Your task to perform on an android device: toggle data saver in the chrome app Image 0: 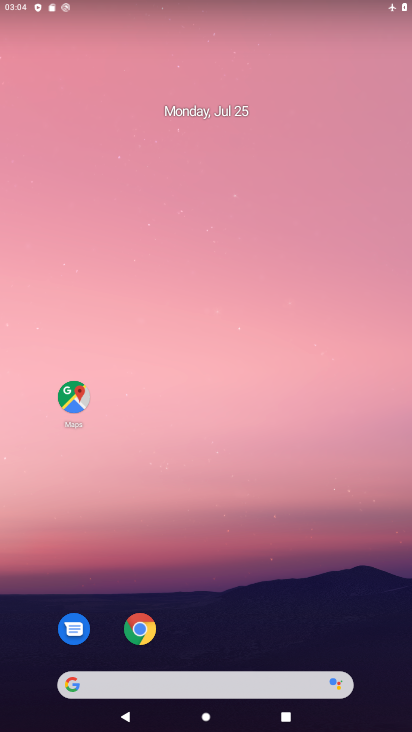
Step 0: click (140, 641)
Your task to perform on an android device: toggle data saver in the chrome app Image 1: 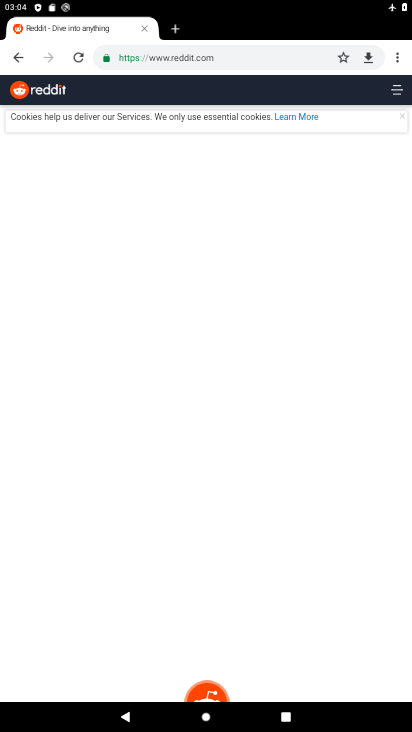
Step 1: drag from (397, 56) to (273, 351)
Your task to perform on an android device: toggle data saver in the chrome app Image 2: 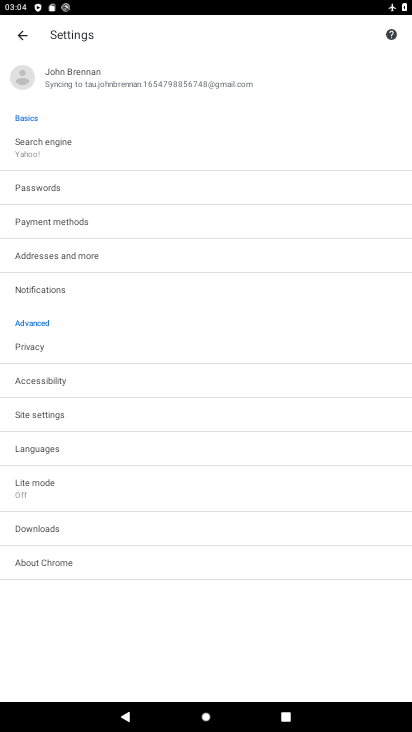
Step 2: click (50, 484)
Your task to perform on an android device: toggle data saver in the chrome app Image 3: 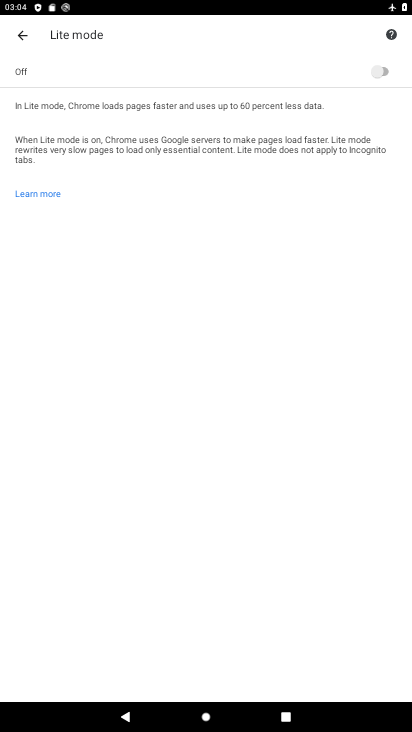
Step 3: click (380, 74)
Your task to perform on an android device: toggle data saver in the chrome app Image 4: 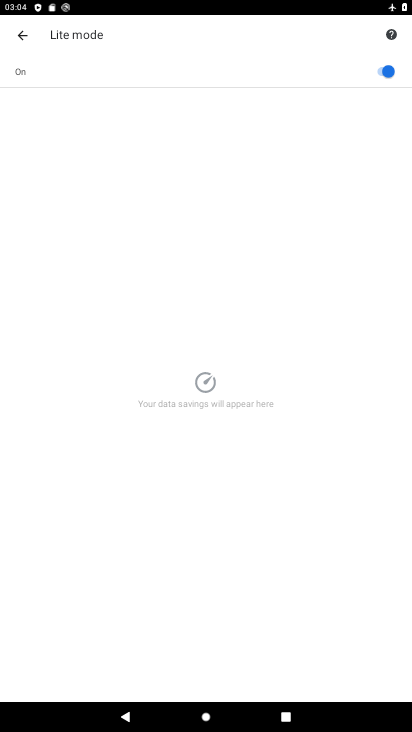
Step 4: task complete